Your task to perform on an android device: Go to internet settings Image 0: 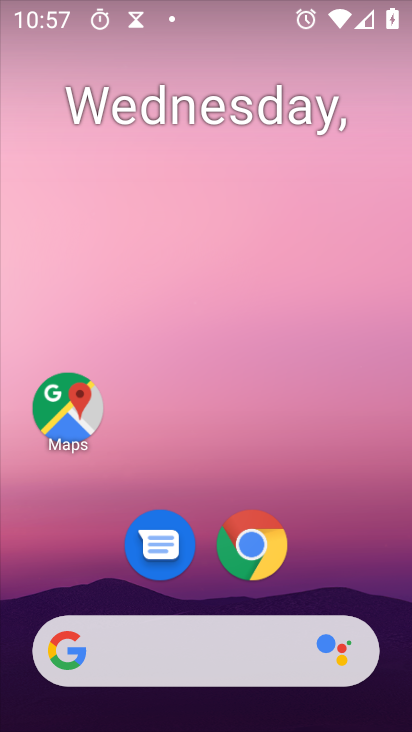
Step 0: press home button
Your task to perform on an android device: Go to internet settings Image 1: 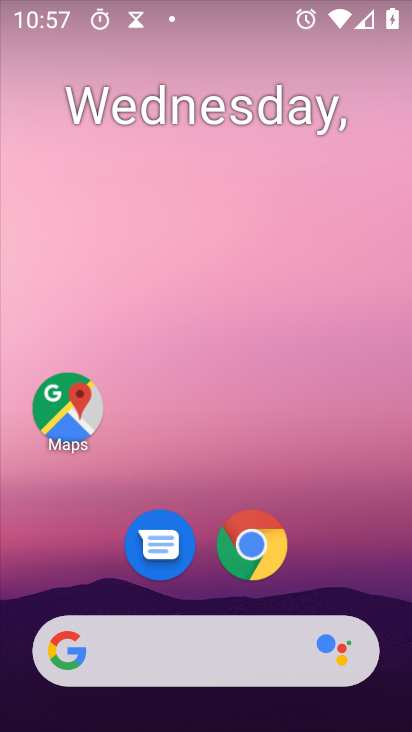
Step 1: drag from (126, 664) to (301, 155)
Your task to perform on an android device: Go to internet settings Image 2: 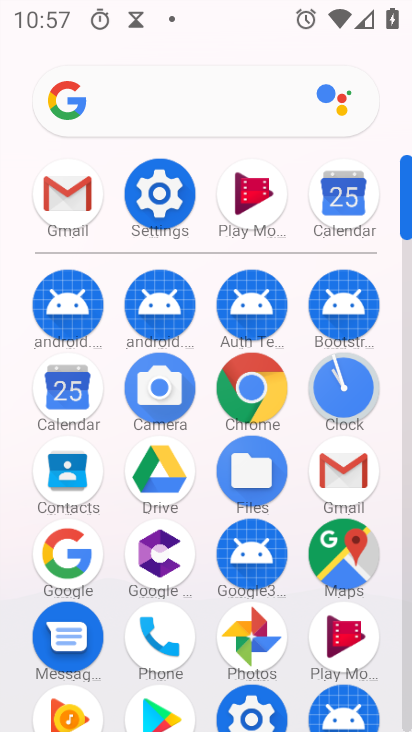
Step 2: click (148, 198)
Your task to perform on an android device: Go to internet settings Image 3: 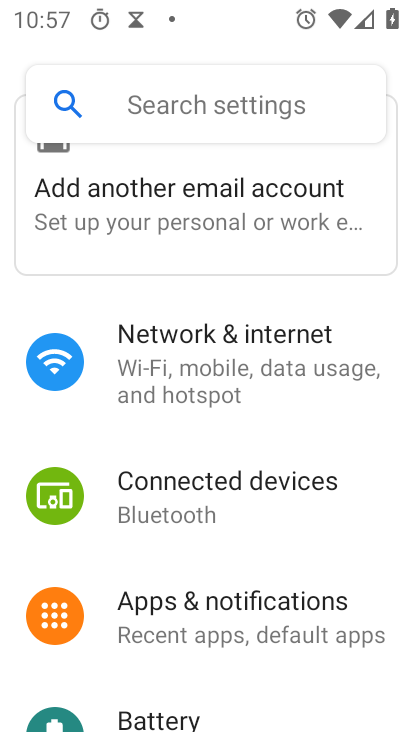
Step 3: click (227, 370)
Your task to perform on an android device: Go to internet settings Image 4: 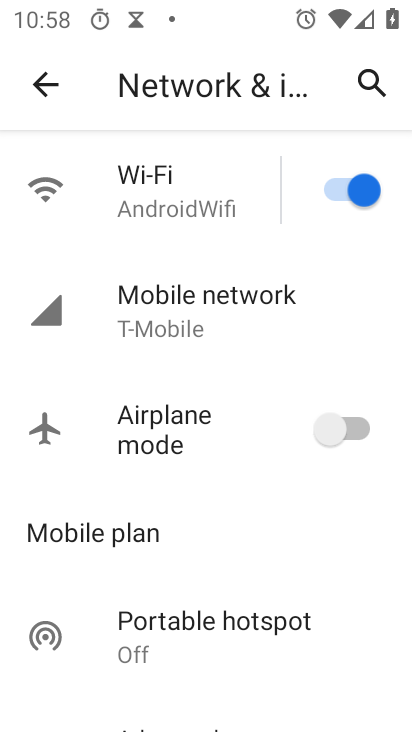
Step 4: task complete